Your task to perform on an android device: Is it going to rain this weekend? Image 0: 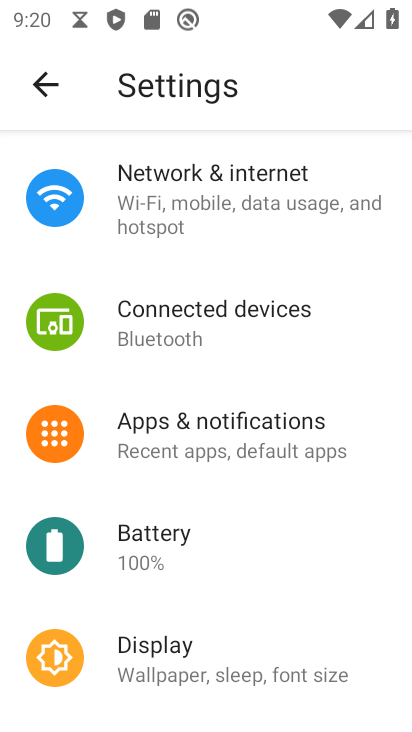
Step 0: press home button
Your task to perform on an android device: Is it going to rain this weekend? Image 1: 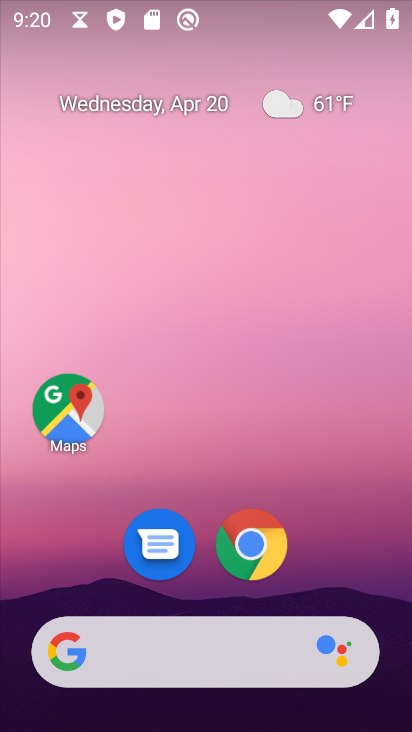
Step 1: drag from (156, 589) to (197, 449)
Your task to perform on an android device: Is it going to rain this weekend? Image 2: 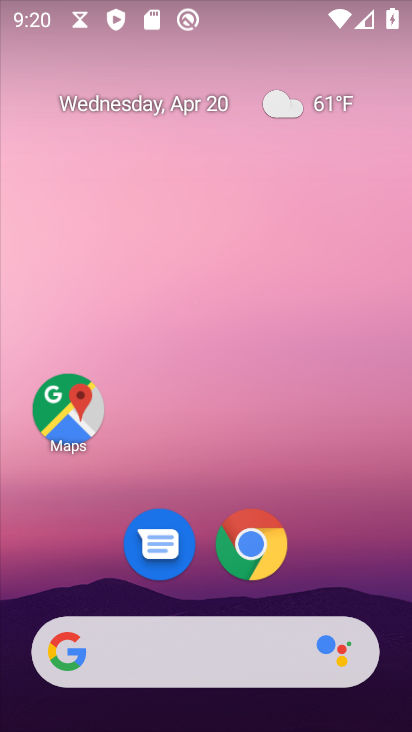
Step 2: click (325, 104)
Your task to perform on an android device: Is it going to rain this weekend? Image 3: 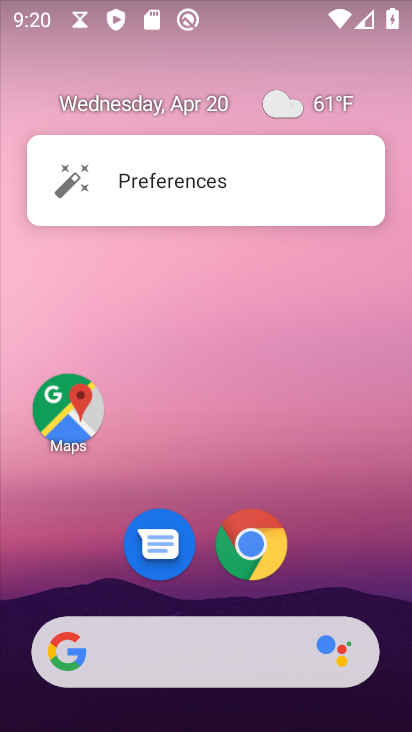
Step 3: click (308, 98)
Your task to perform on an android device: Is it going to rain this weekend? Image 4: 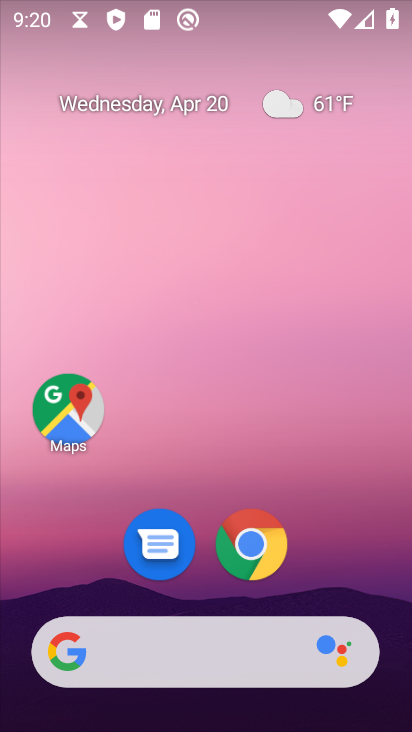
Step 4: click (295, 109)
Your task to perform on an android device: Is it going to rain this weekend? Image 5: 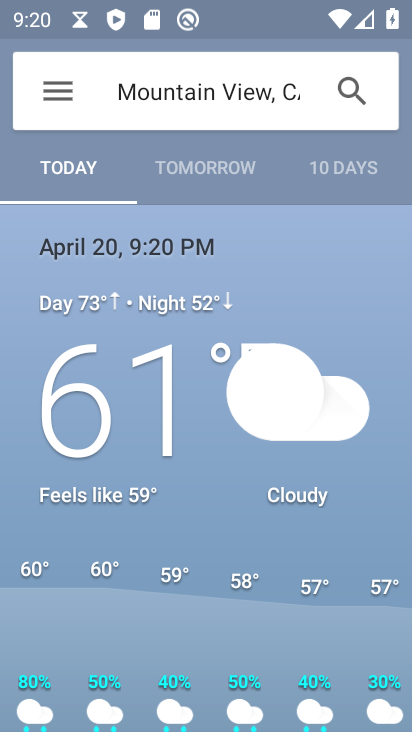
Step 5: task complete